Your task to perform on an android device: open app "Spotify: Music and Podcasts" (install if not already installed) Image 0: 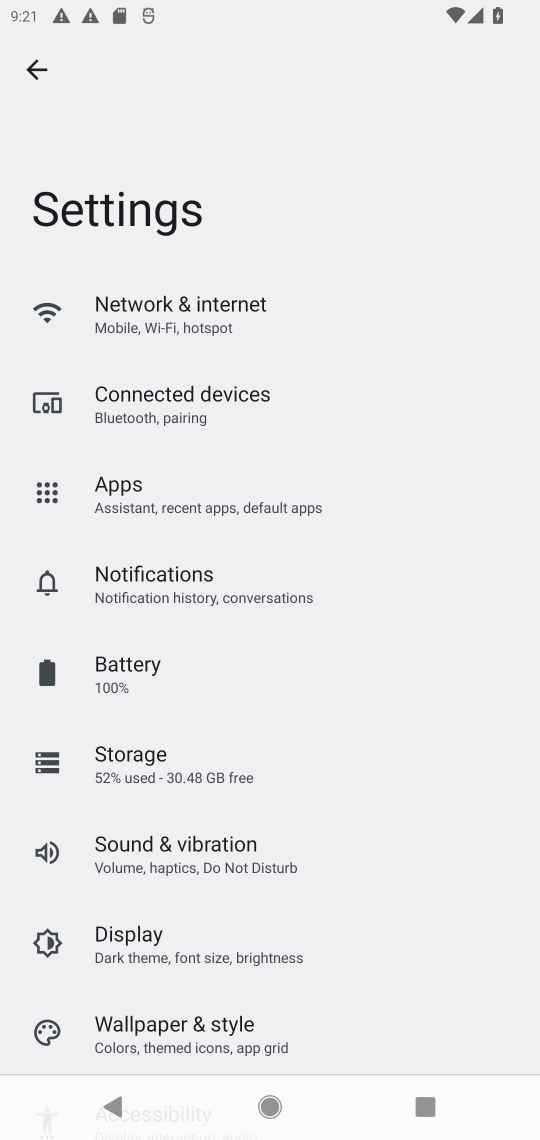
Step 0: press home button
Your task to perform on an android device: open app "Spotify: Music and Podcasts" (install if not already installed) Image 1: 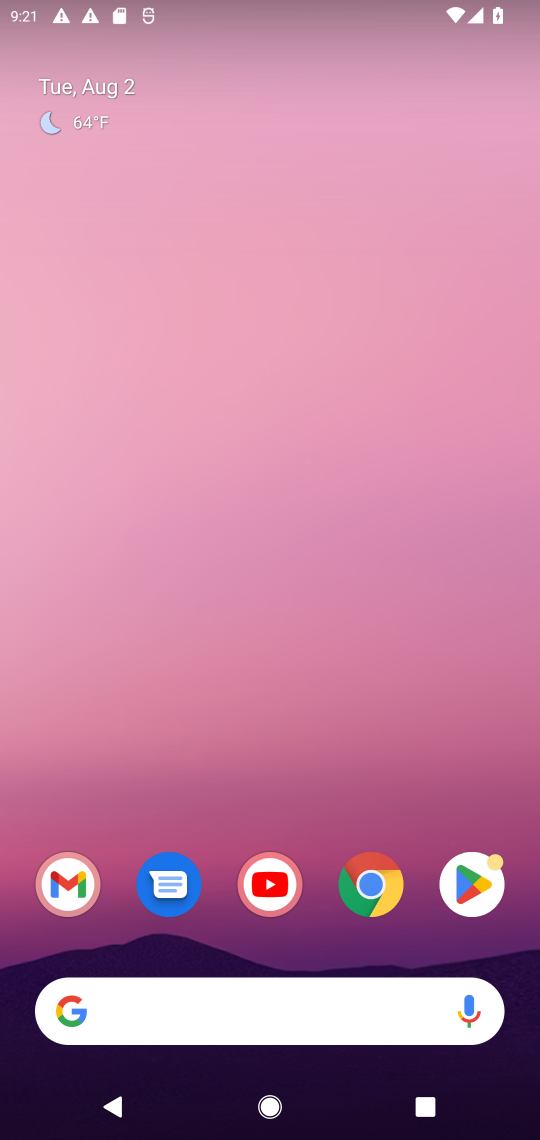
Step 1: click (474, 888)
Your task to perform on an android device: open app "Spotify: Music and Podcasts" (install if not already installed) Image 2: 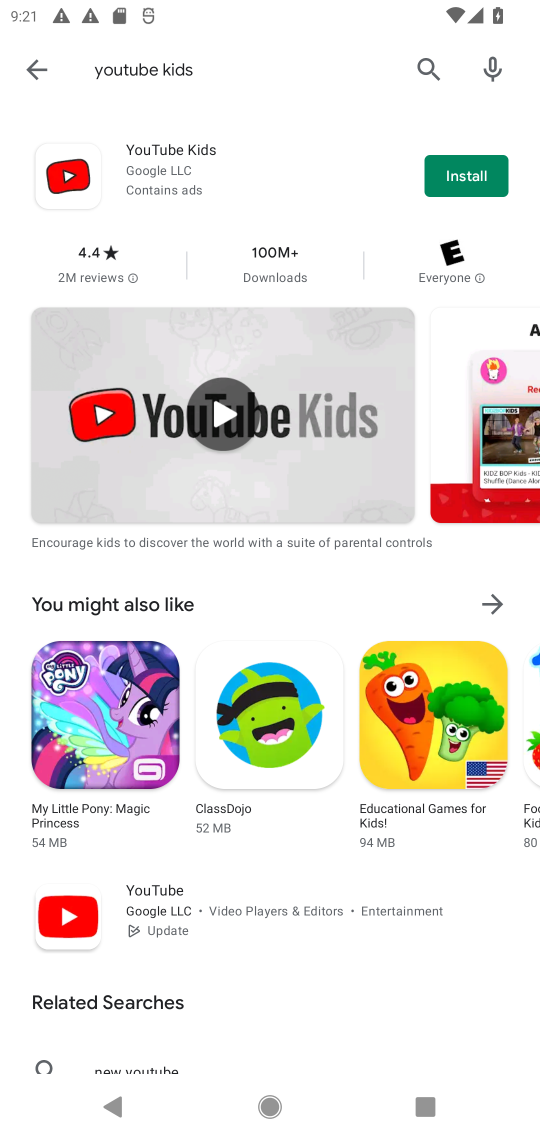
Step 2: click (412, 69)
Your task to perform on an android device: open app "Spotify: Music and Podcasts" (install if not already installed) Image 3: 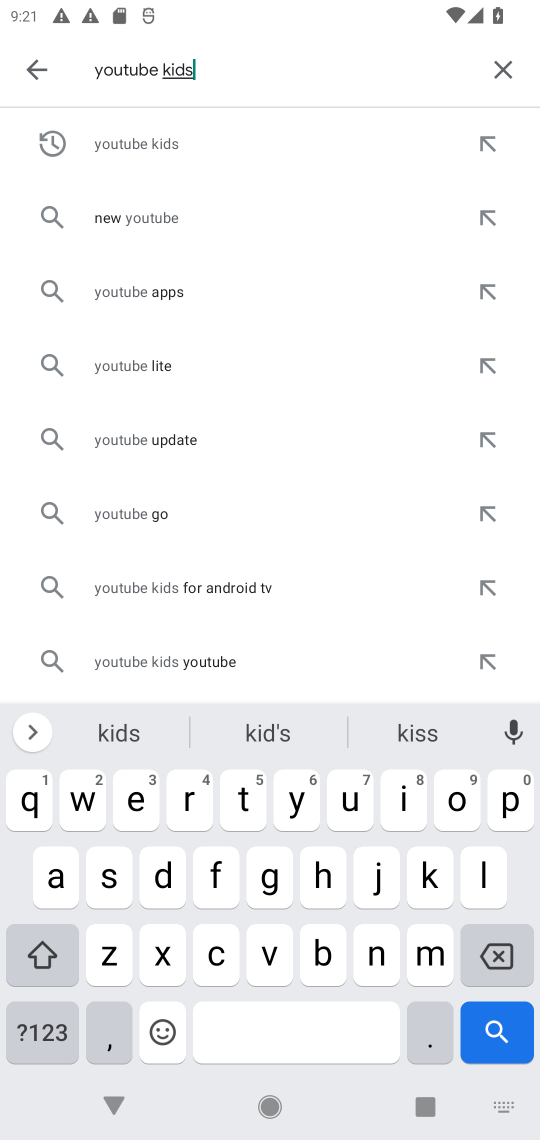
Step 3: click (508, 68)
Your task to perform on an android device: open app "Spotify: Music and Podcasts" (install if not already installed) Image 4: 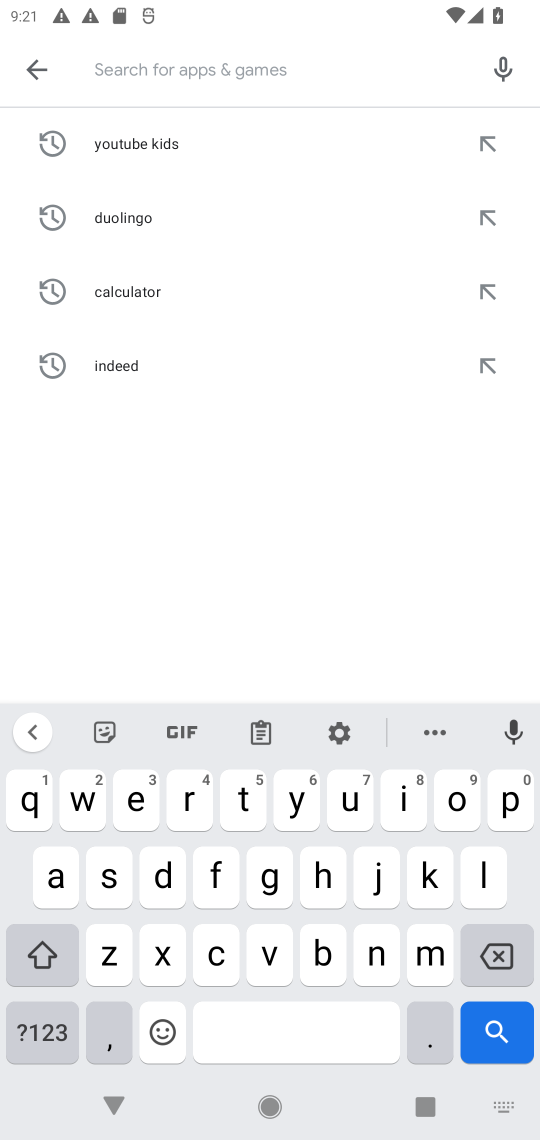
Step 4: click (106, 876)
Your task to perform on an android device: open app "Spotify: Music and Podcasts" (install if not already installed) Image 5: 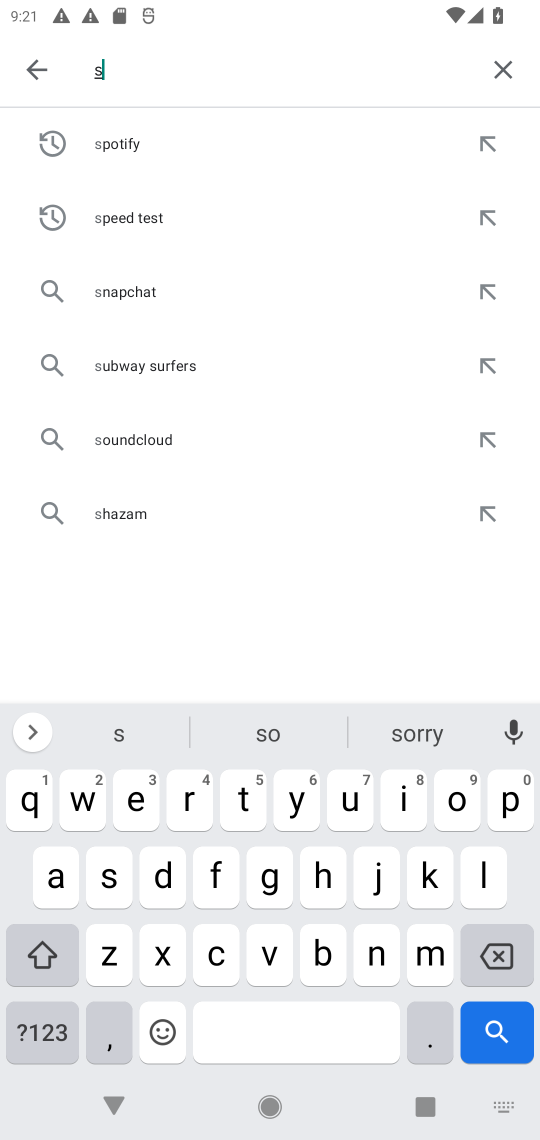
Step 5: click (511, 796)
Your task to perform on an android device: open app "Spotify: Music and Podcasts" (install if not already installed) Image 6: 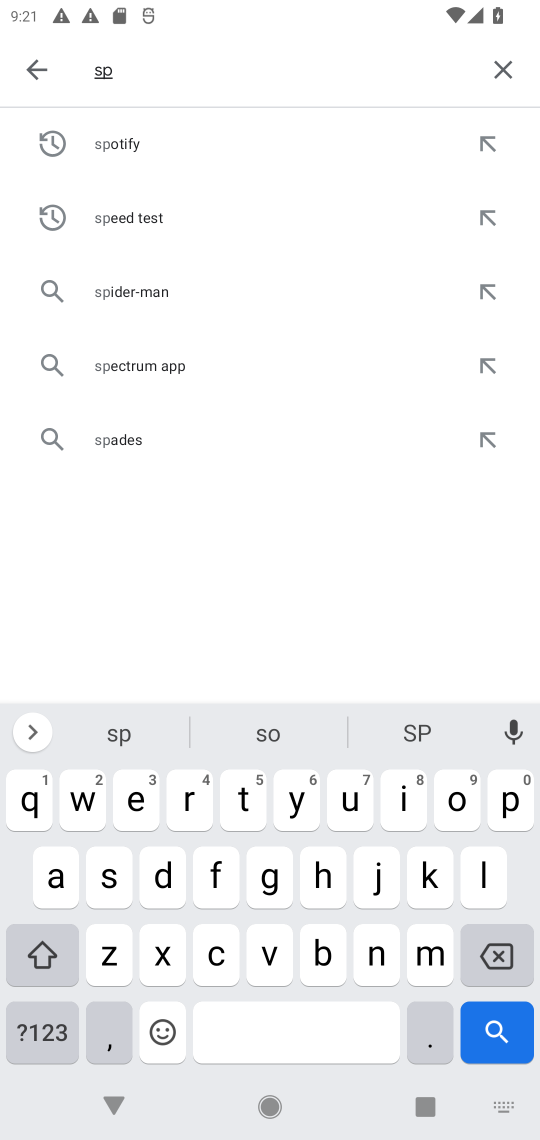
Step 6: click (457, 802)
Your task to perform on an android device: open app "Spotify: Music and Podcasts" (install if not already installed) Image 7: 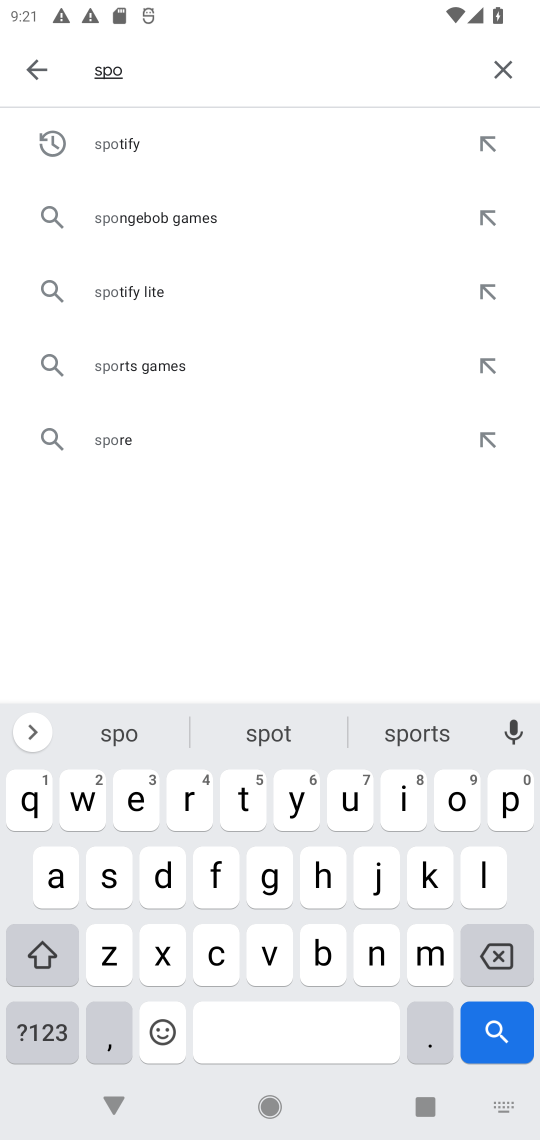
Step 7: click (135, 141)
Your task to perform on an android device: open app "Spotify: Music and Podcasts" (install if not already installed) Image 8: 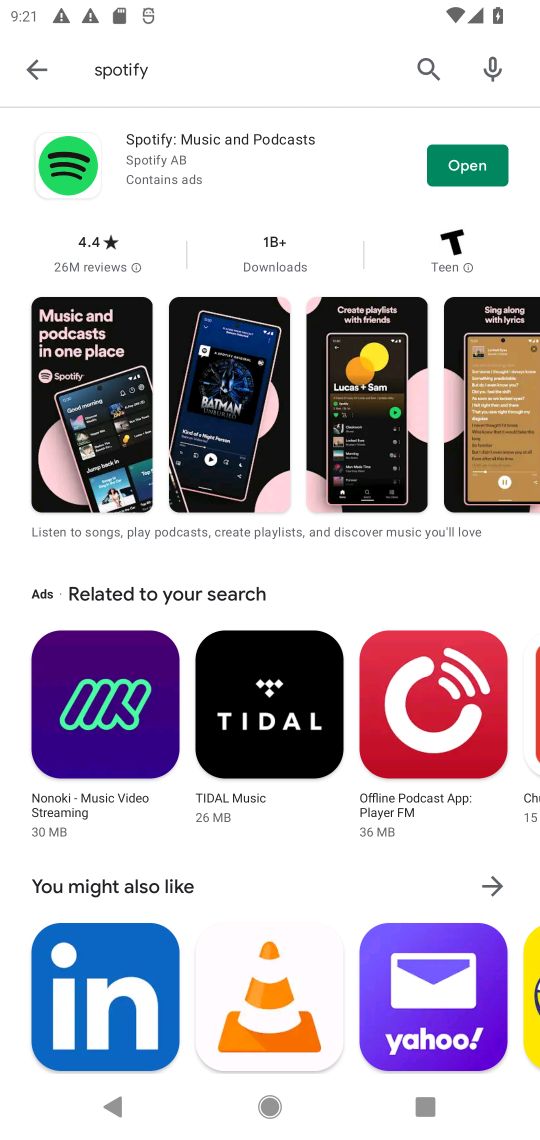
Step 8: click (454, 169)
Your task to perform on an android device: open app "Spotify: Music and Podcasts" (install if not already installed) Image 9: 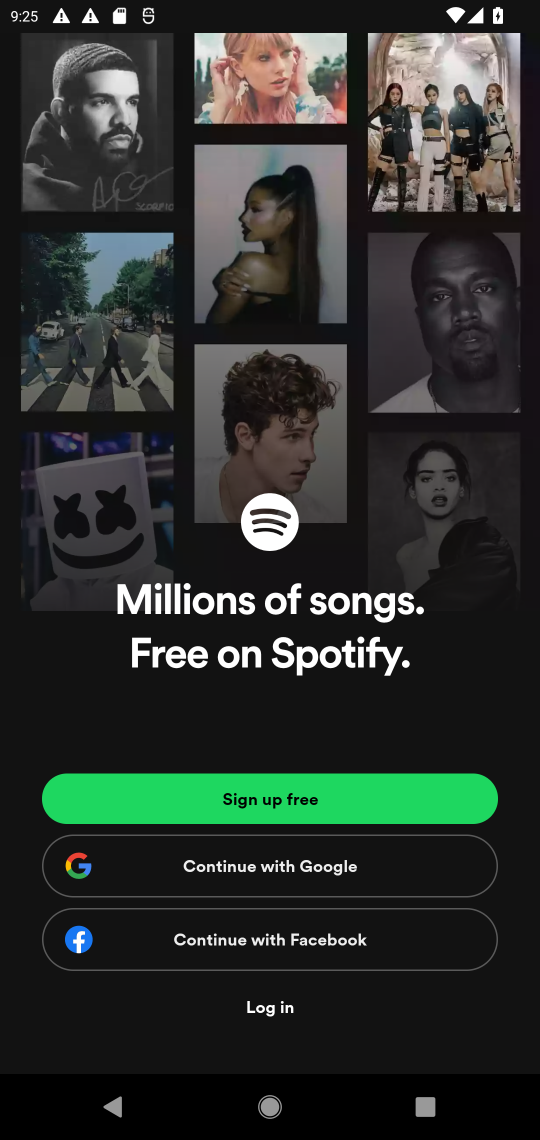
Step 9: task complete